Your task to perform on an android device: Search for Mexican restaurants on Maps Image 0: 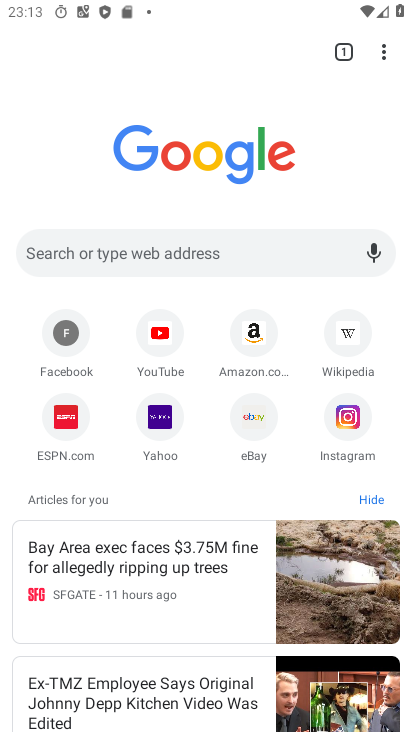
Step 0: press home button
Your task to perform on an android device: Search for Mexican restaurants on Maps Image 1: 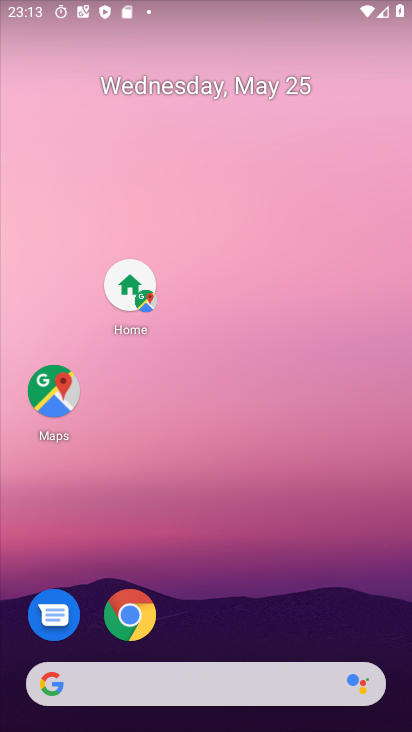
Step 1: click (59, 400)
Your task to perform on an android device: Search for Mexican restaurants on Maps Image 2: 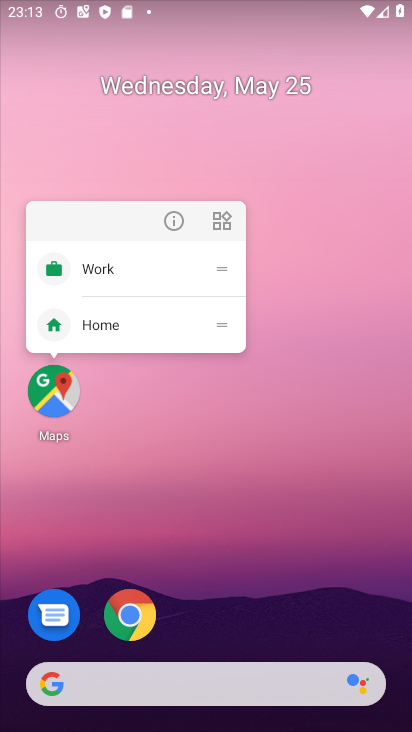
Step 2: click (54, 398)
Your task to perform on an android device: Search for Mexican restaurants on Maps Image 3: 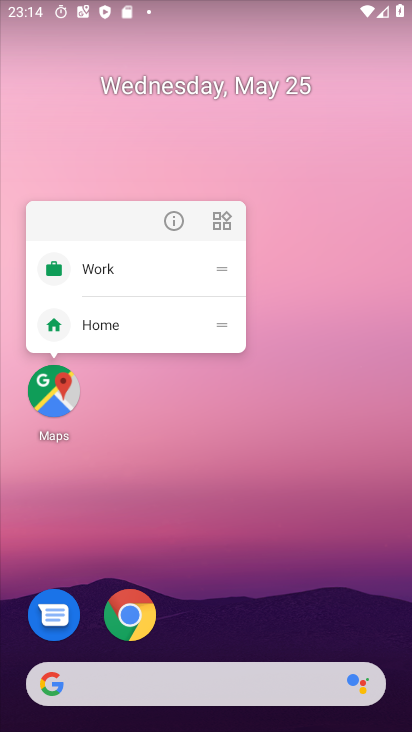
Step 3: click (41, 391)
Your task to perform on an android device: Search for Mexican restaurants on Maps Image 4: 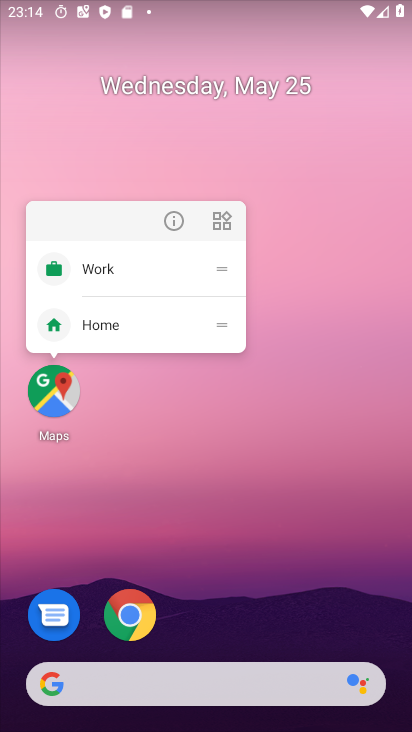
Step 4: click (41, 391)
Your task to perform on an android device: Search for Mexican restaurants on Maps Image 5: 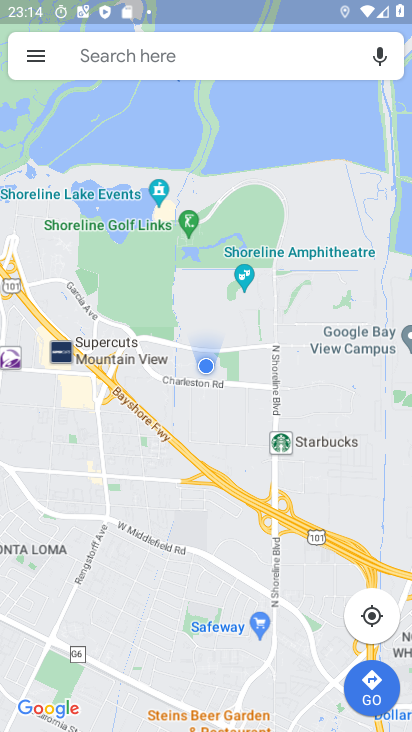
Step 5: click (145, 63)
Your task to perform on an android device: Search for Mexican restaurants on Maps Image 6: 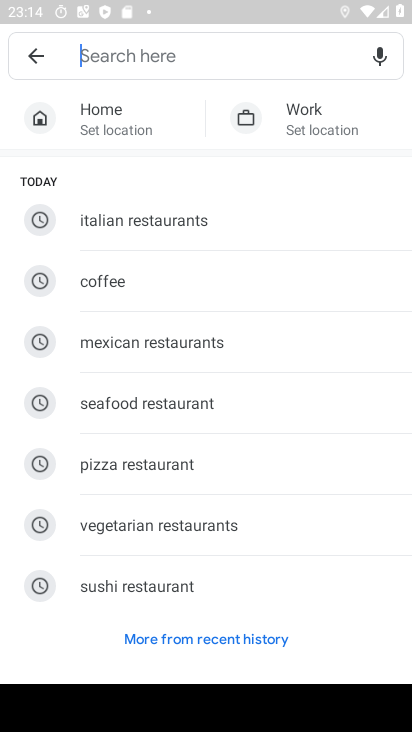
Step 6: click (176, 339)
Your task to perform on an android device: Search for Mexican restaurants on Maps Image 7: 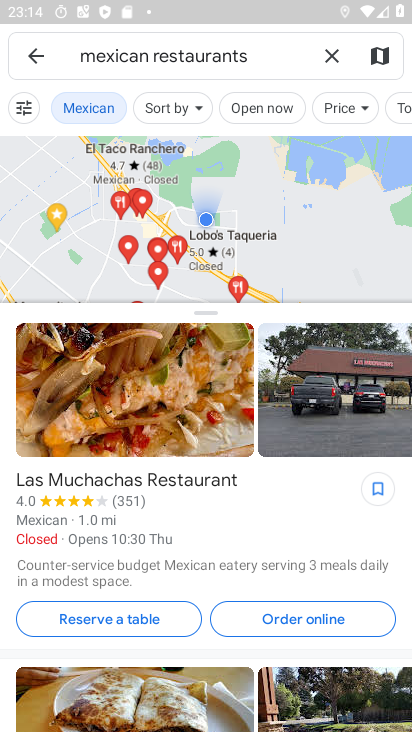
Step 7: task complete